Your task to perform on an android device: Search for Italian restaurants on Maps Image 0: 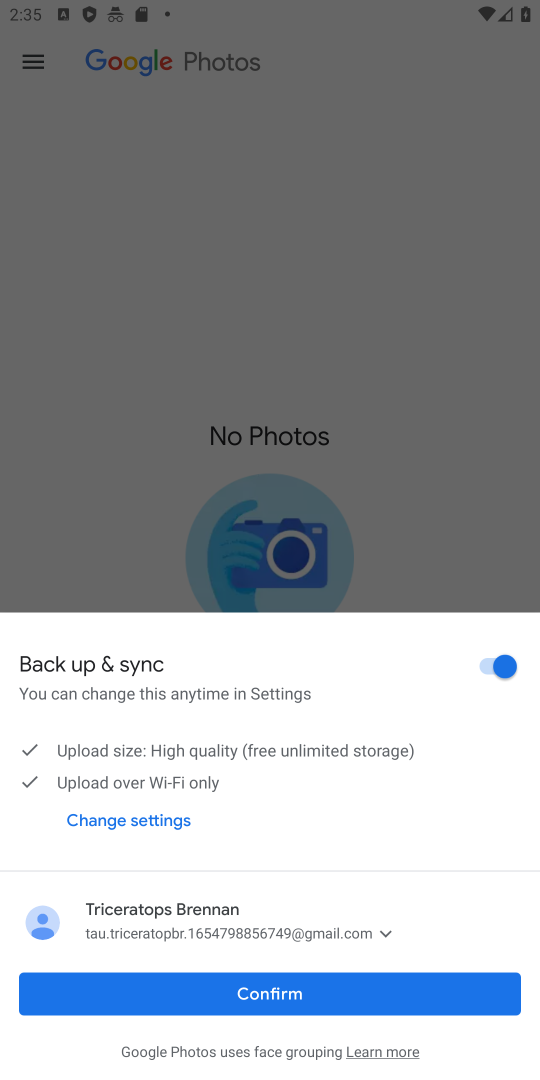
Step 0: press home button
Your task to perform on an android device: Search for Italian restaurants on Maps Image 1: 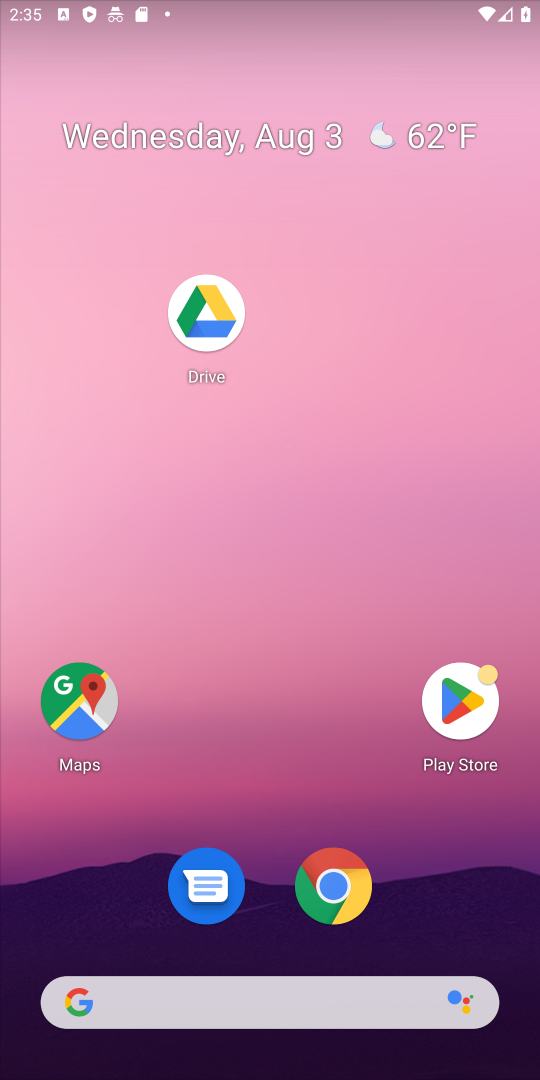
Step 1: drag from (377, 905) to (360, 7)
Your task to perform on an android device: Search for Italian restaurants on Maps Image 2: 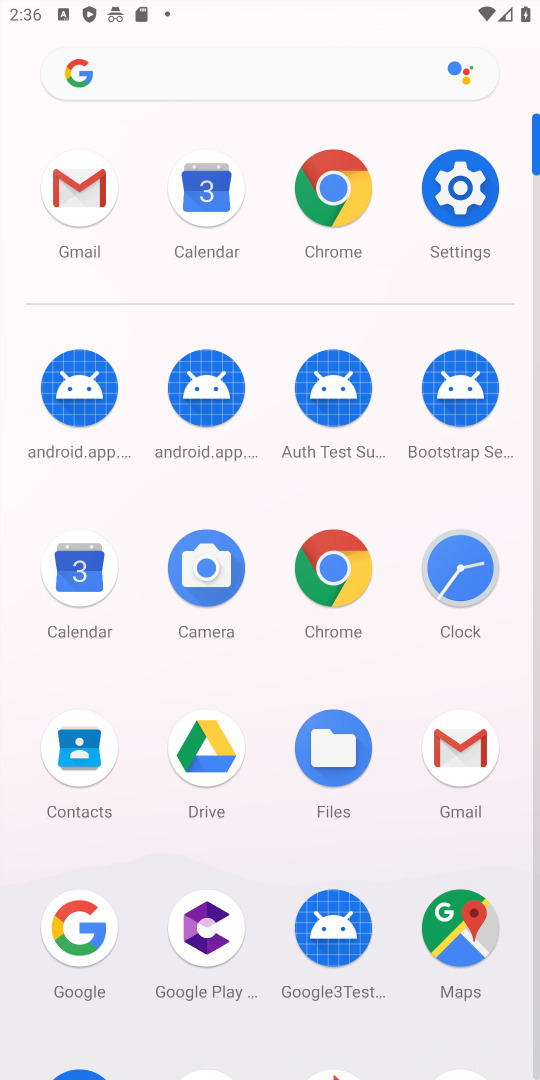
Step 2: click (452, 943)
Your task to perform on an android device: Search for Italian restaurants on Maps Image 3: 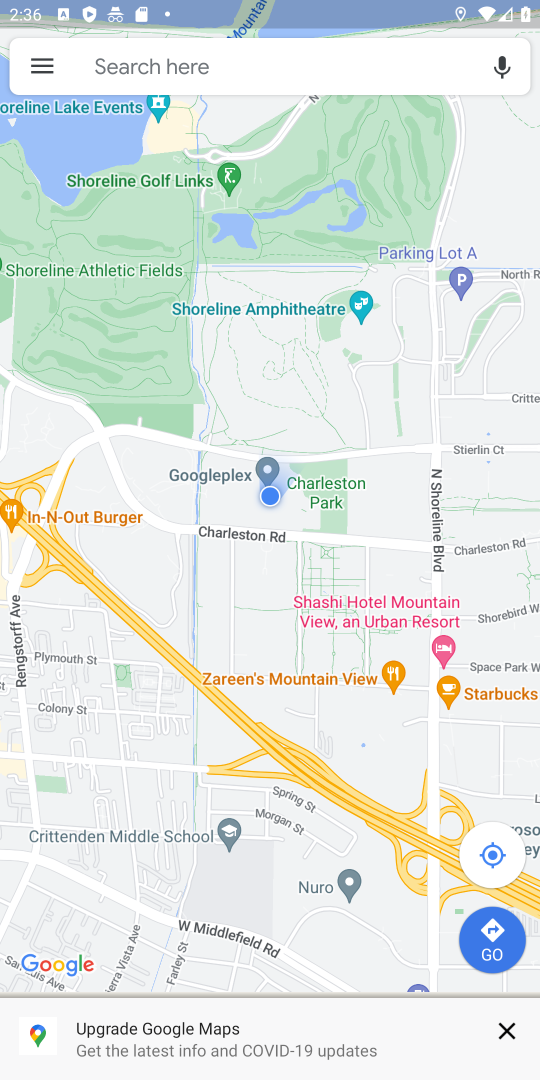
Step 3: click (226, 75)
Your task to perform on an android device: Search for Italian restaurants on Maps Image 4: 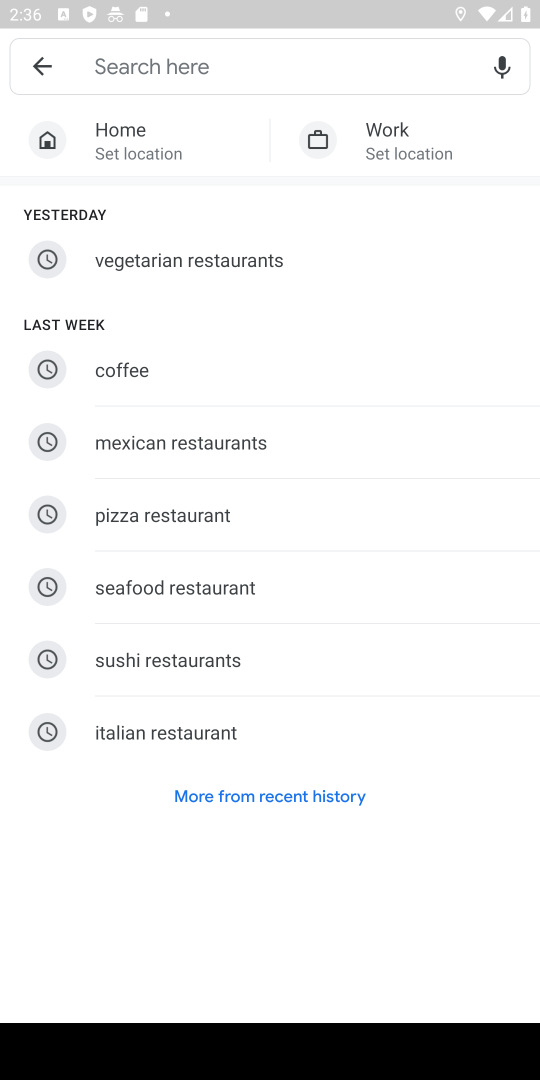
Step 4: click (215, 717)
Your task to perform on an android device: Search for Italian restaurants on Maps Image 5: 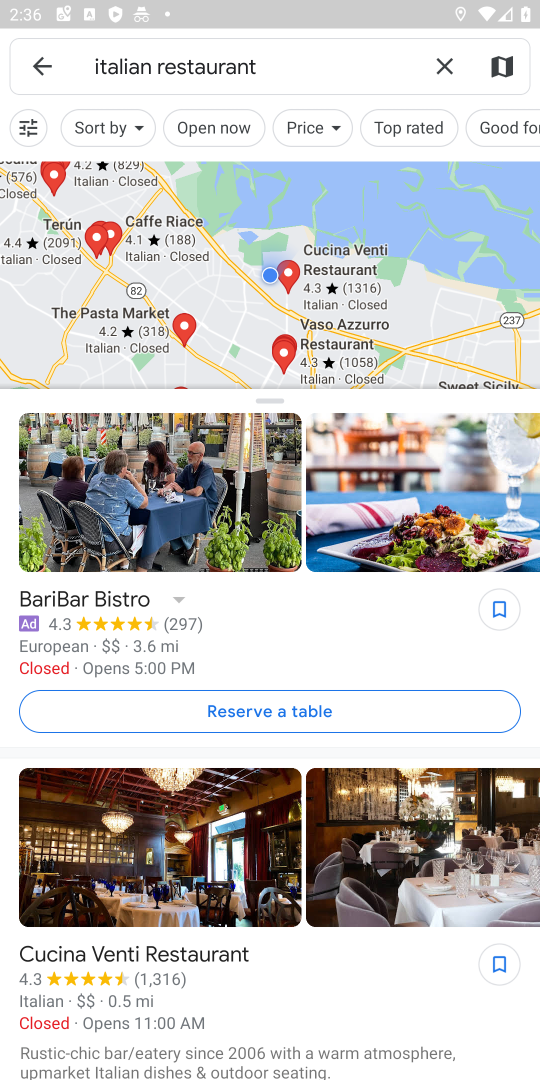
Step 5: task complete